Your task to perform on an android device: Show the shopping cart on ebay. Search for "usb-a" on ebay, select the first entry, and add it to the cart. Image 0: 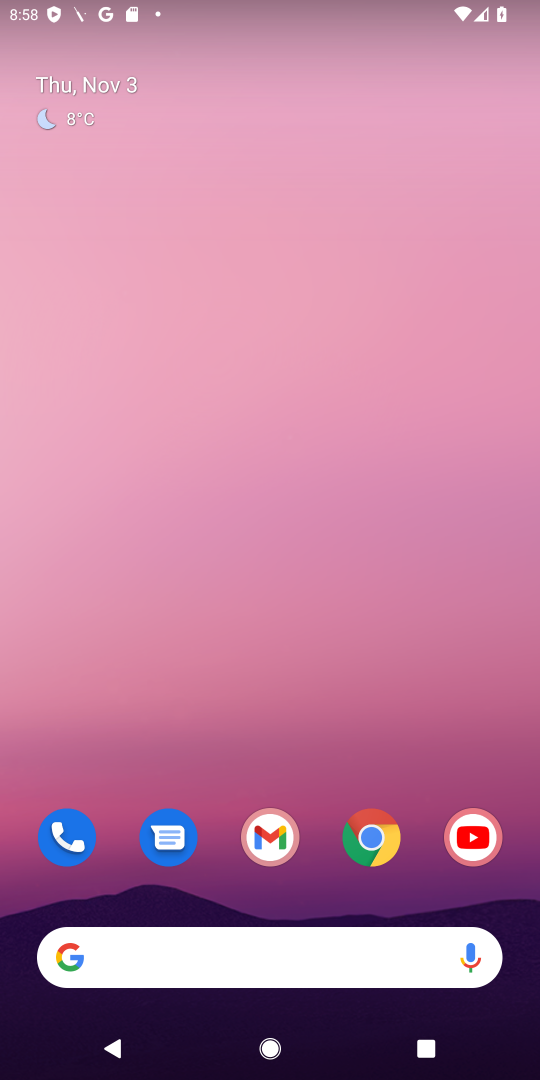
Step 0: click (363, 835)
Your task to perform on an android device: Show the shopping cart on ebay. Search for "usb-a" on ebay, select the first entry, and add it to the cart. Image 1: 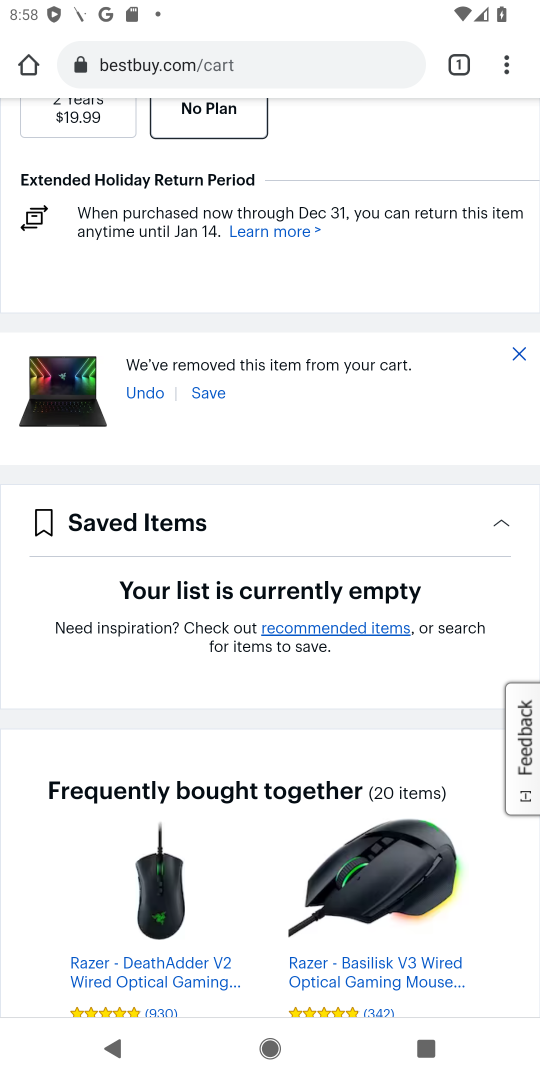
Step 1: click (241, 64)
Your task to perform on an android device: Show the shopping cart on ebay. Search for "usb-a" on ebay, select the first entry, and add it to the cart. Image 2: 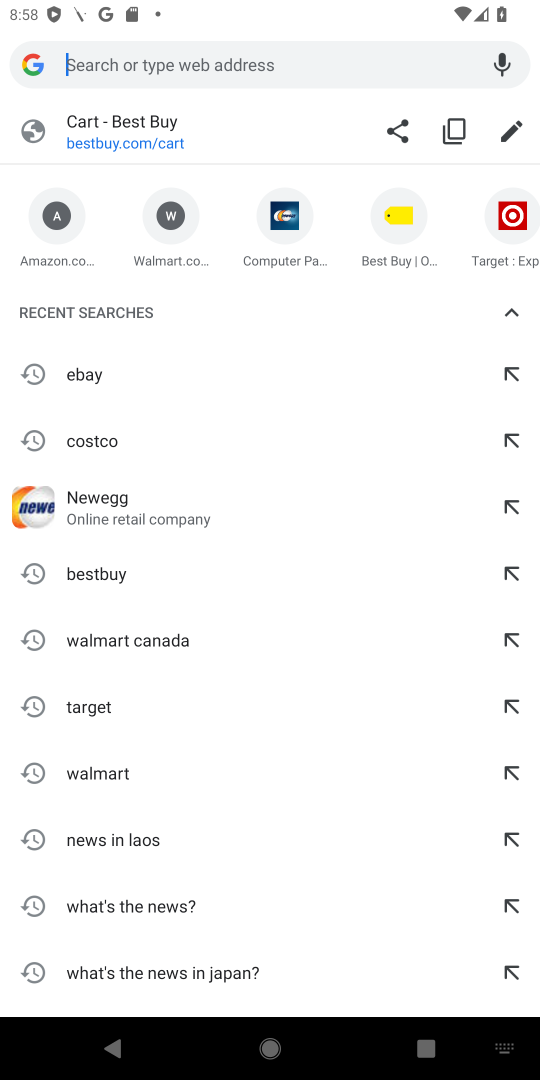
Step 2: click (74, 381)
Your task to perform on an android device: Show the shopping cart on ebay. Search for "usb-a" on ebay, select the first entry, and add it to the cart. Image 3: 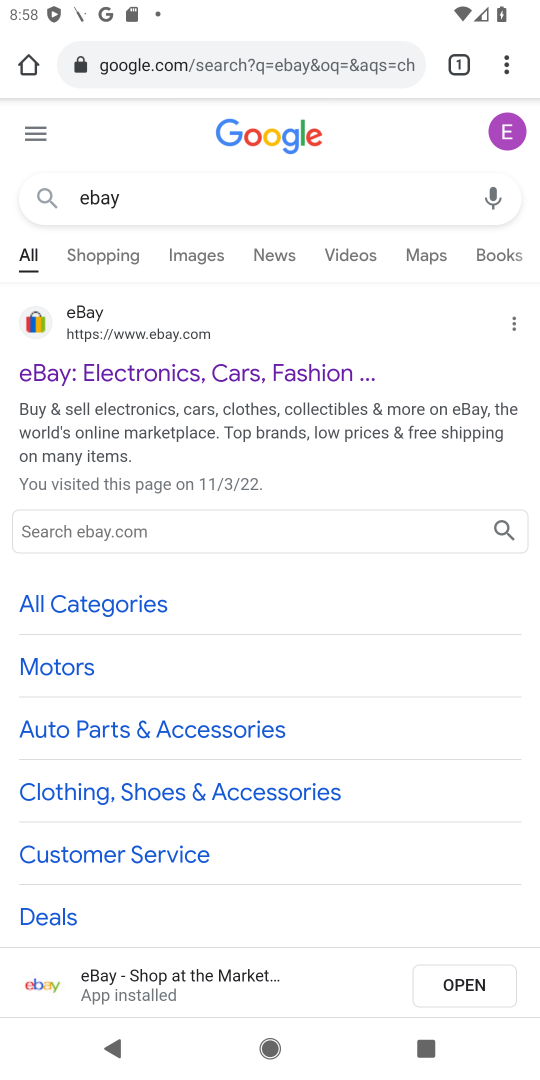
Step 3: click (135, 378)
Your task to perform on an android device: Show the shopping cart on ebay. Search for "usb-a" on ebay, select the first entry, and add it to the cart. Image 4: 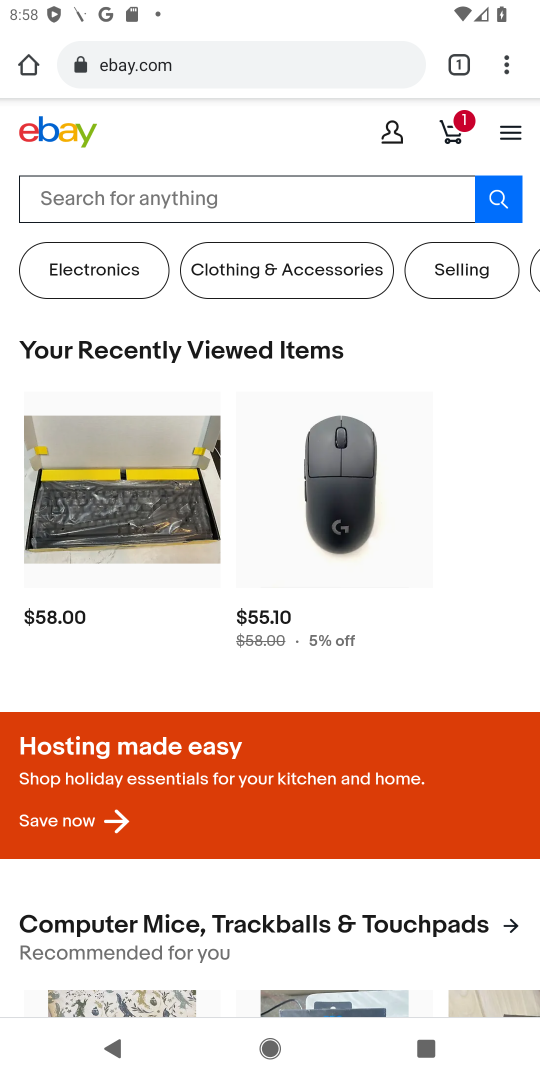
Step 4: click (169, 195)
Your task to perform on an android device: Show the shopping cart on ebay. Search for "usb-a" on ebay, select the first entry, and add it to the cart. Image 5: 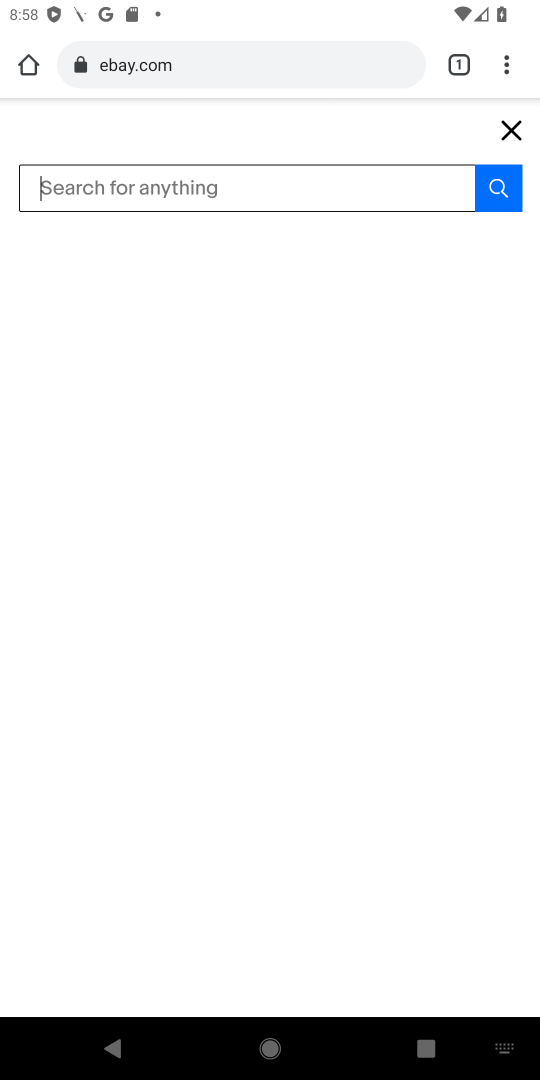
Step 5: type "usb-a"
Your task to perform on an android device: Show the shopping cart on ebay. Search for "usb-a" on ebay, select the first entry, and add it to the cart. Image 6: 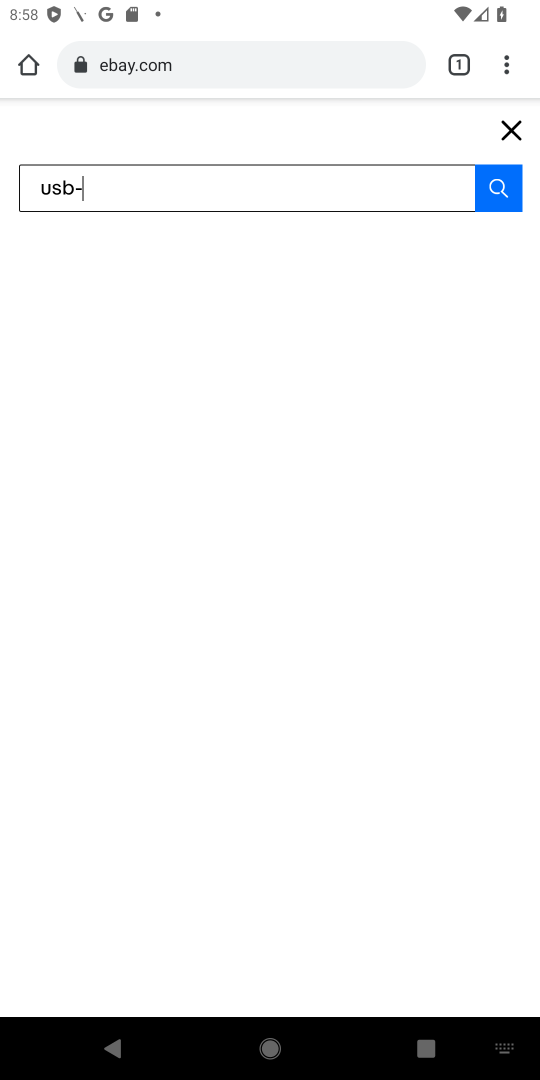
Step 6: press enter
Your task to perform on an android device: Show the shopping cart on ebay. Search for "usb-a" on ebay, select the first entry, and add it to the cart. Image 7: 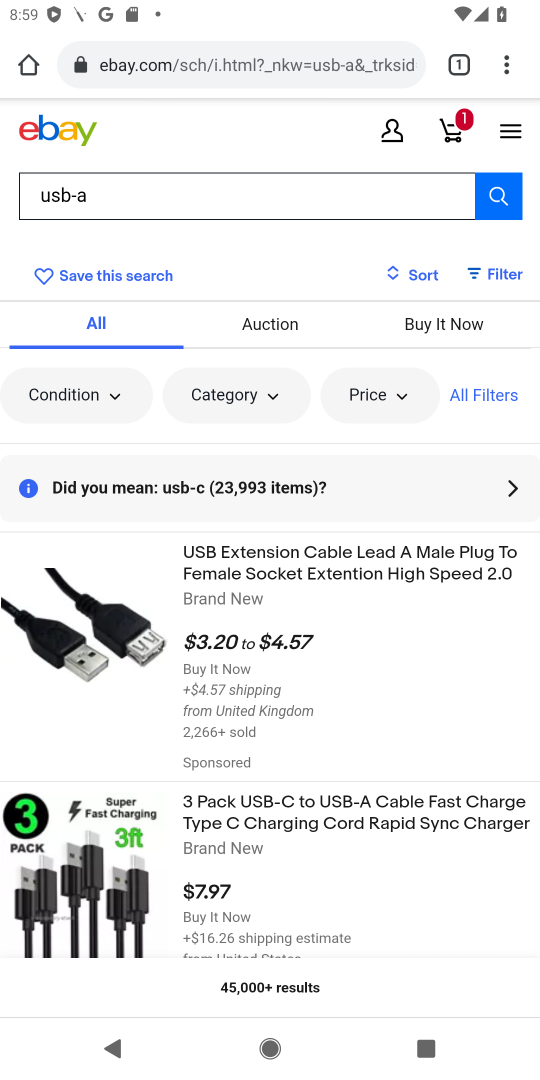
Step 7: click (310, 595)
Your task to perform on an android device: Show the shopping cart on ebay. Search for "usb-a" on ebay, select the first entry, and add it to the cart. Image 8: 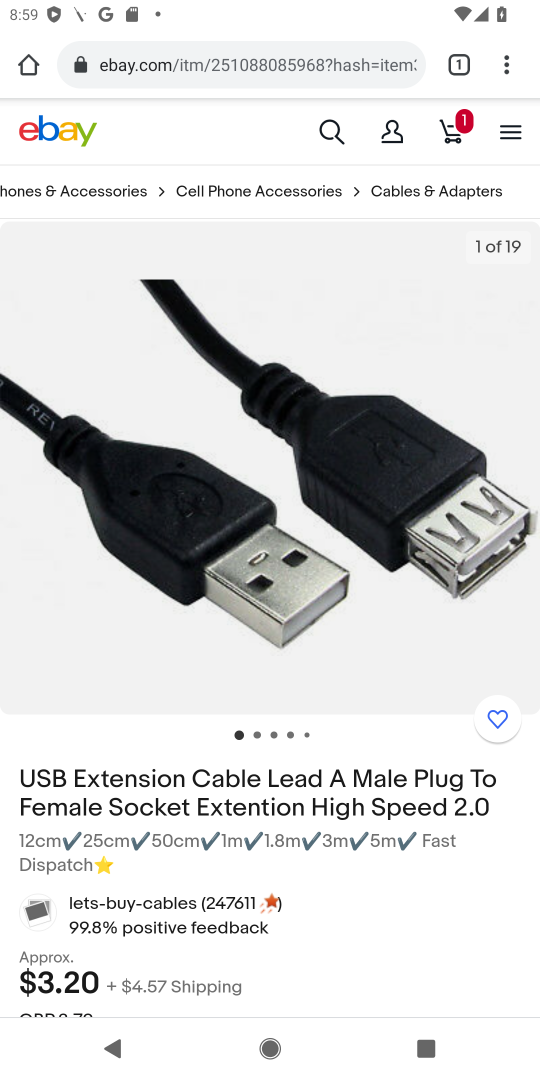
Step 8: task complete